Your task to perform on an android device: Open network settings Image 0: 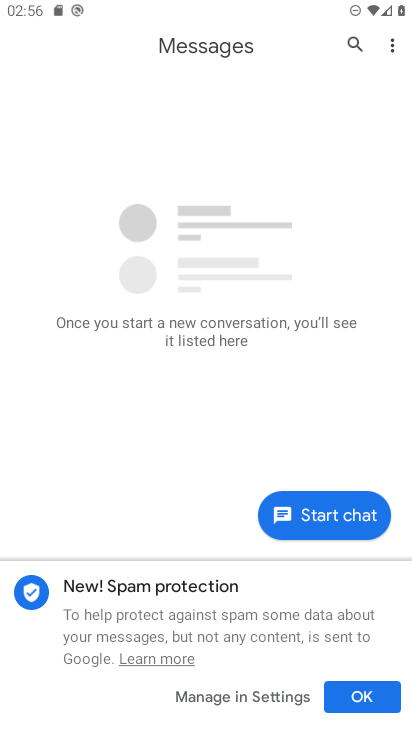
Step 0: press home button
Your task to perform on an android device: Open network settings Image 1: 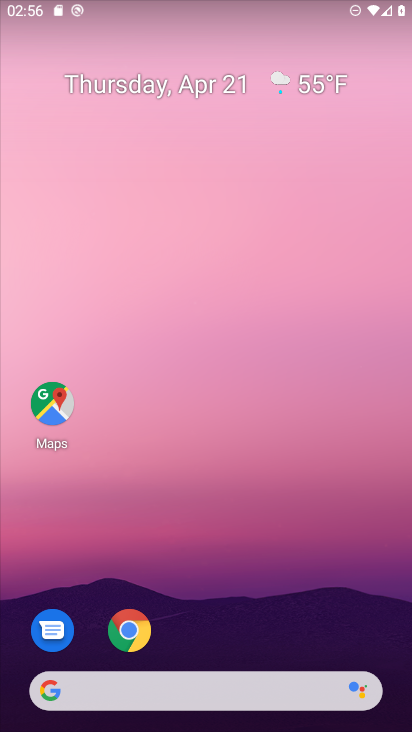
Step 1: drag from (311, 613) to (318, 141)
Your task to perform on an android device: Open network settings Image 2: 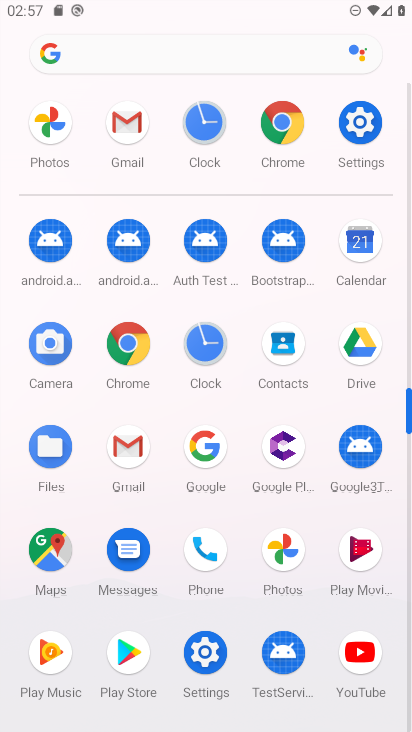
Step 2: click (350, 149)
Your task to perform on an android device: Open network settings Image 3: 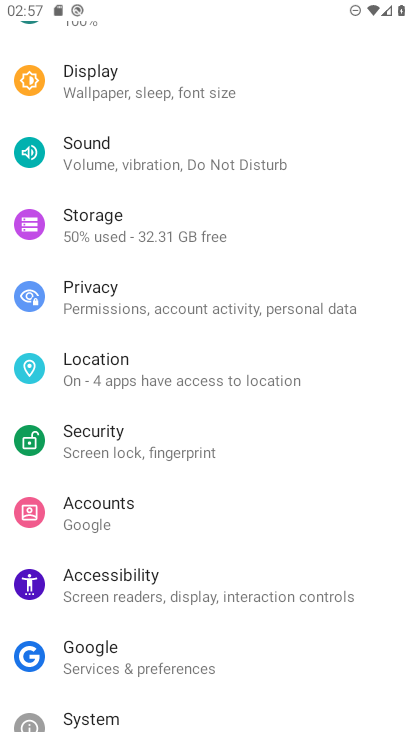
Step 3: drag from (188, 164) to (299, 705)
Your task to perform on an android device: Open network settings Image 4: 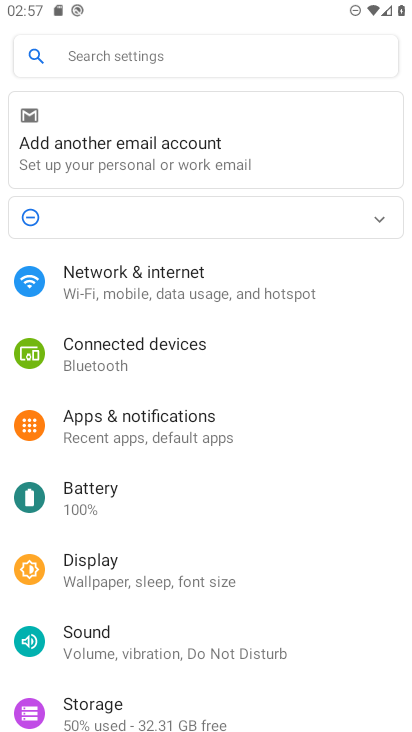
Step 4: click (212, 302)
Your task to perform on an android device: Open network settings Image 5: 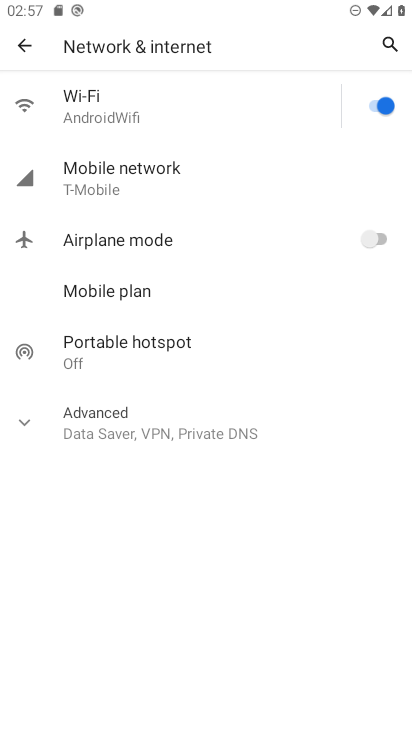
Step 5: task complete